Your task to perform on an android device: move an email to a new category in the gmail app Image 0: 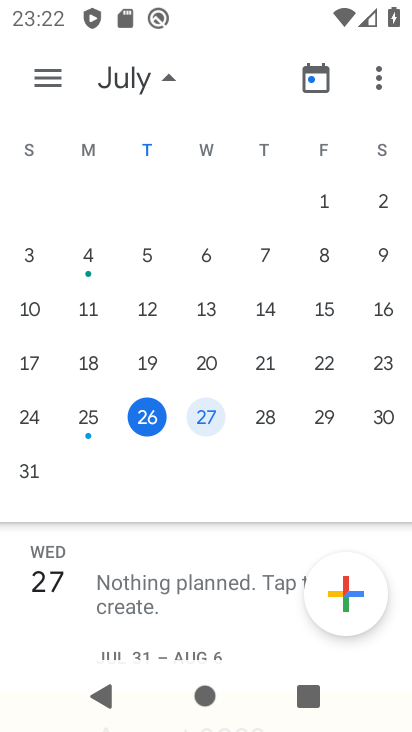
Step 0: press back button
Your task to perform on an android device: move an email to a new category in the gmail app Image 1: 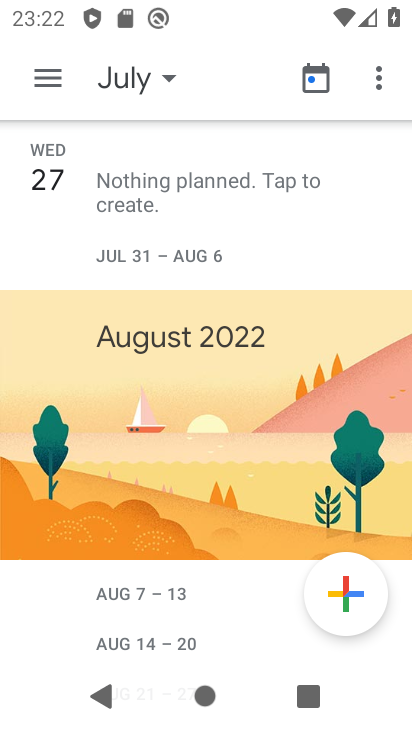
Step 1: press back button
Your task to perform on an android device: move an email to a new category in the gmail app Image 2: 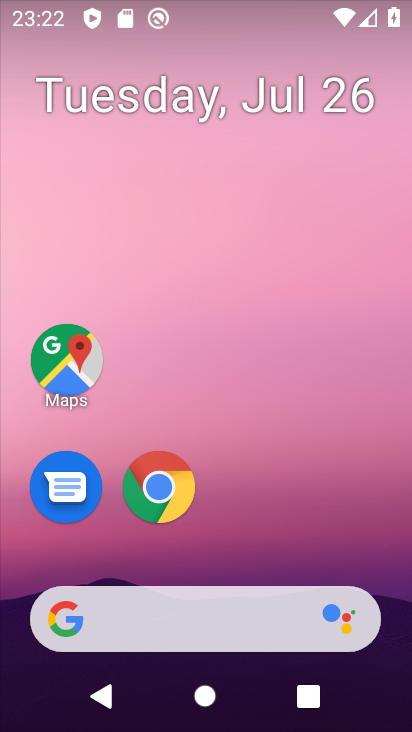
Step 2: drag from (260, 558) to (261, 7)
Your task to perform on an android device: move an email to a new category in the gmail app Image 3: 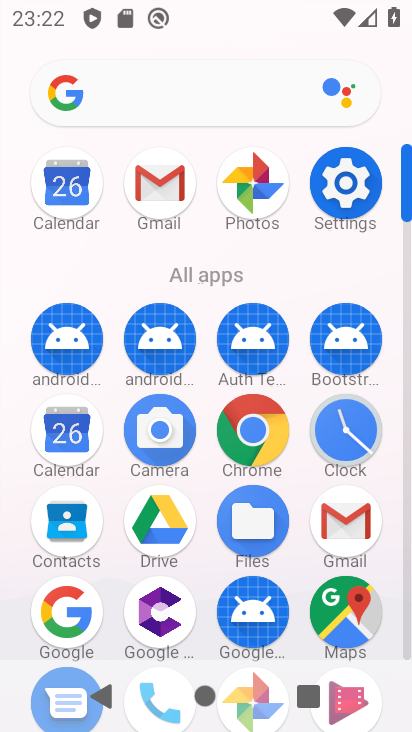
Step 3: click (165, 177)
Your task to perform on an android device: move an email to a new category in the gmail app Image 4: 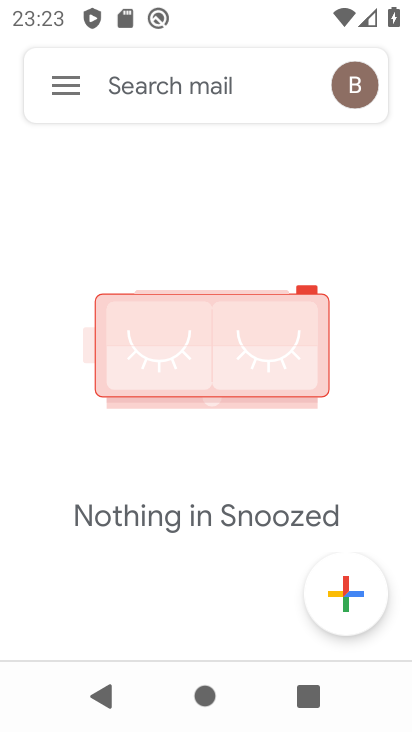
Step 4: click (71, 89)
Your task to perform on an android device: move an email to a new category in the gmail app Image 5: 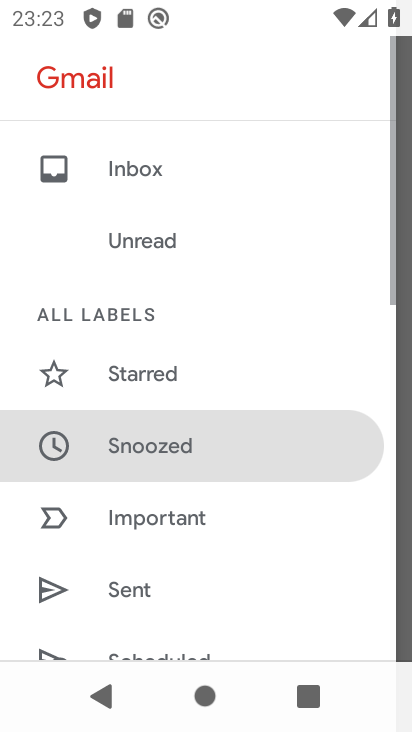
Step 5: drag from (172, 580) to (288, 229)
Your task to perform on an android device: move an email to a new category in the gmail app Image 6: 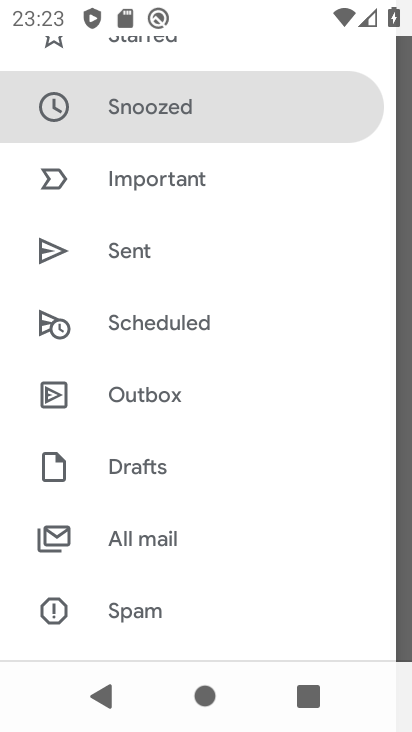
Step 6: click (195, 535)
Your task to perform on an android device: move an email to a new category in the gmail app Image 7: 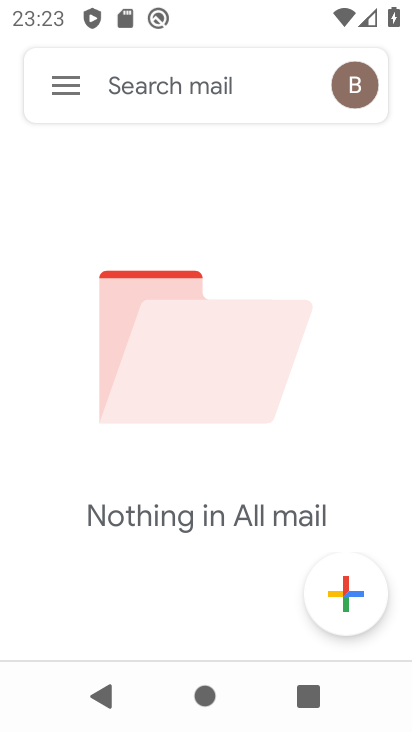
Step 7: click (62, 92)
Your task to perform on an android device: move an email to a new category in the gmail app Image 8: 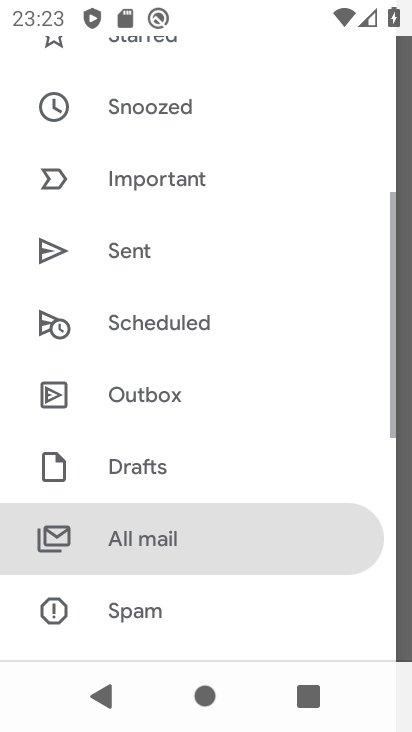
Step 8: click (136, 539)
Your task to perform on an android device: move an email to a new category in the gmail app Image 9: 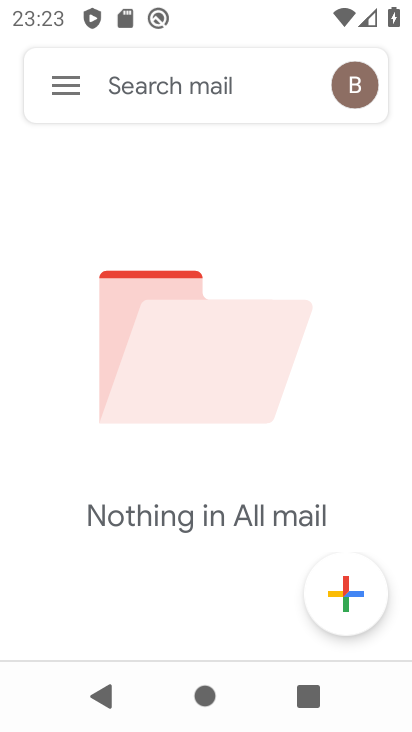
Step 9: task complete